Your task to perform on an android device: Open Google Maps Image 0: 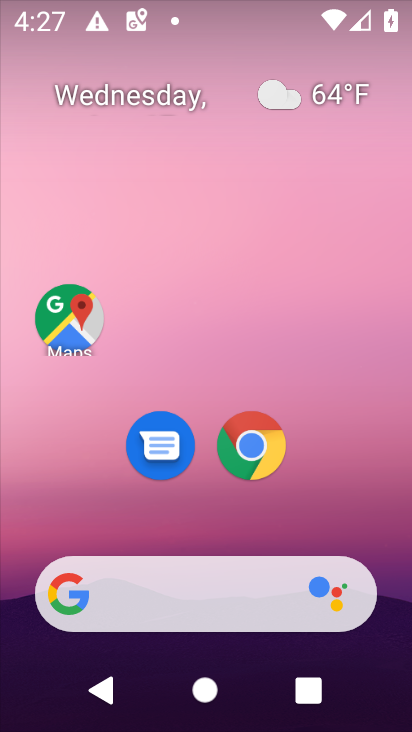
Step 0: drag from (341, 508) to (329, 4)
Your task to perform on an android device: Open Google Maps Image 1: 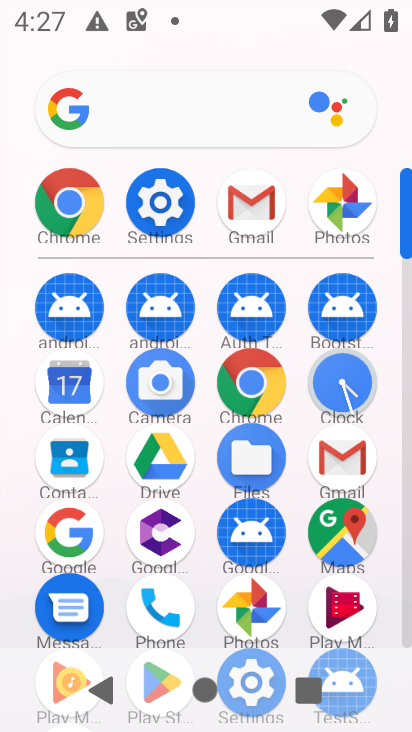
Step 1: click (347, 528)
Your task to perform on an android device: Open Google Maps Image 2: 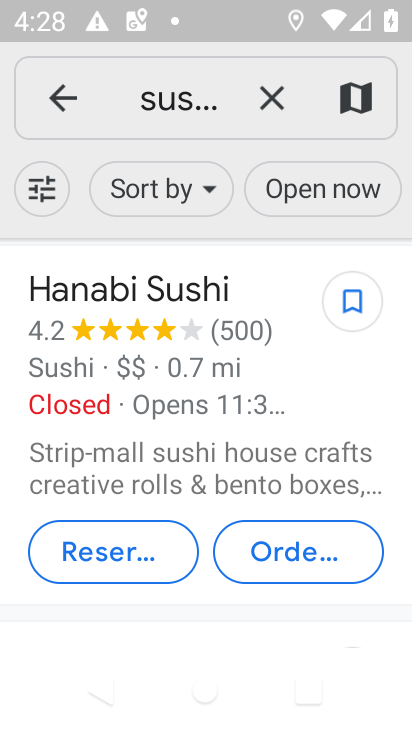
Step 2: task complete